Your task to perform on an android device: Do I have any events today? Image 0: 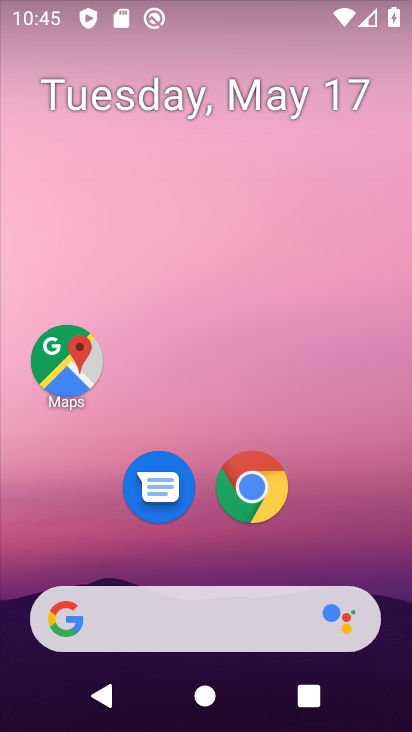
Step 0: drag from (117, 565) to (213, 4)
Your task to perform on an android device: Do I have any events today? Image 1: 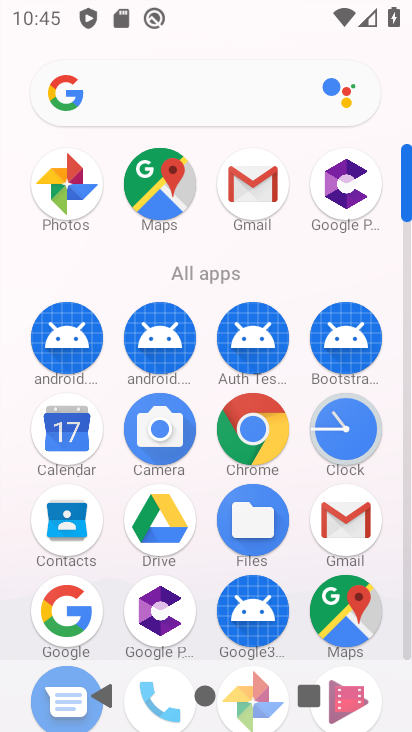
Step 1: click (84, 437)
Your task to perform on an android device: Do I have any events today? Image 2: 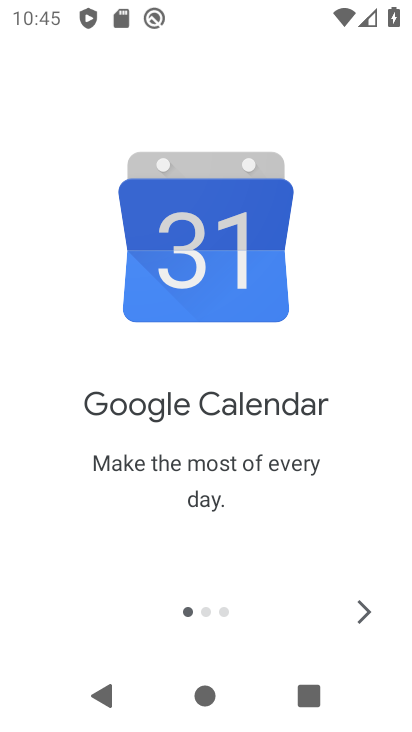
Step 2: click (347, 619)
Your task to perform on an android device: Do I have any events today? Image 3: 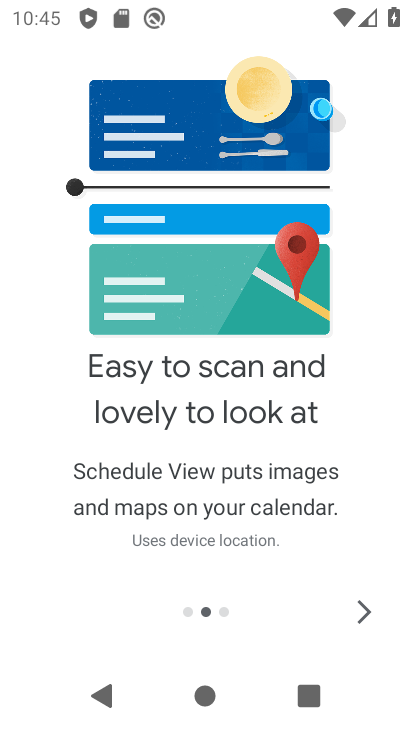
Step 3: click (347, 619)
Your task to perform on an android device: Do I have any events today? Image 4: 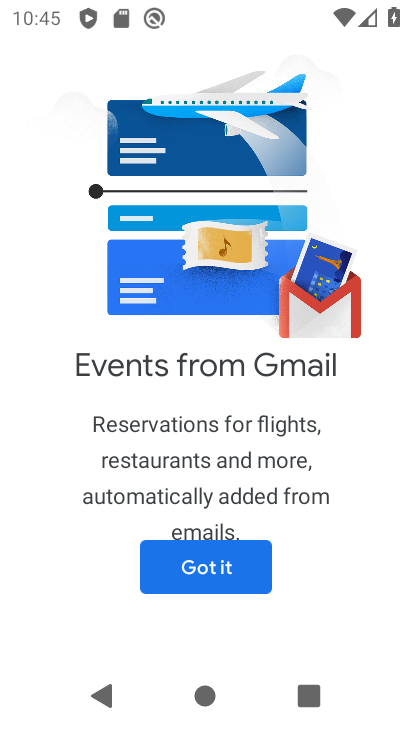
Step 4: click (213, 549)
Your task to perform on an android device: Do I have any events today? Image 5: 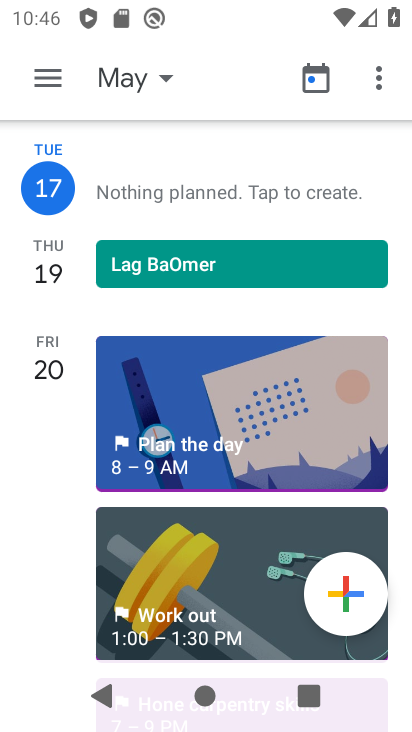
Step 5: click (158, 67)
Your task to perform on an android device: Do I have any events today? Image 6: 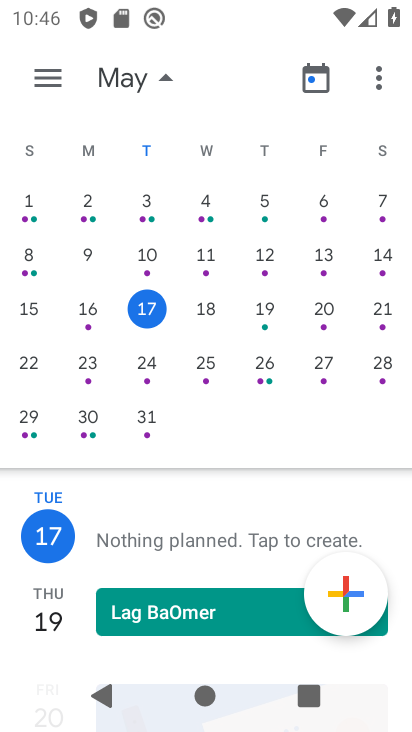
Step 6: click (205, 301)
Your task to perform on an android device: Do I have any events today? Image 7: 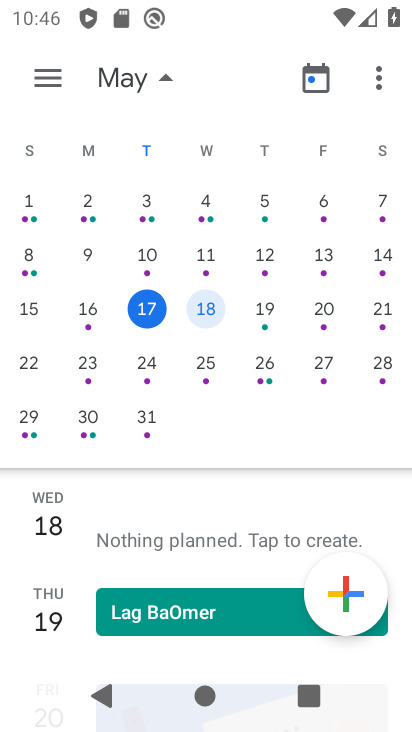
Step 7: click (166, 79)
Your task to perform on an android device: Do I have any events today? Image 8: 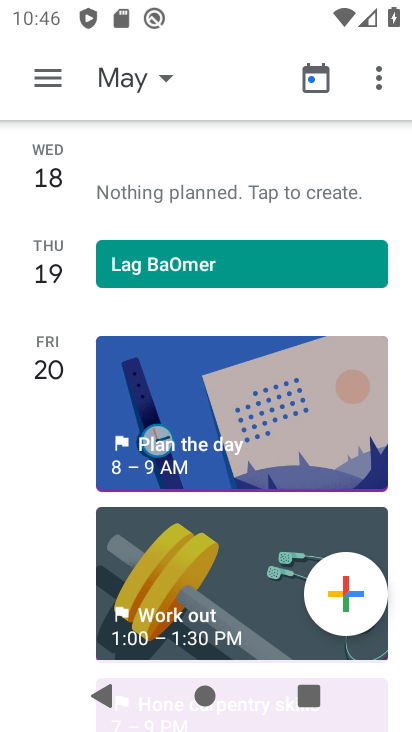
Step 8: task complete